Your task to perform on an android device: refresh tabs in the chrome app Image 0: 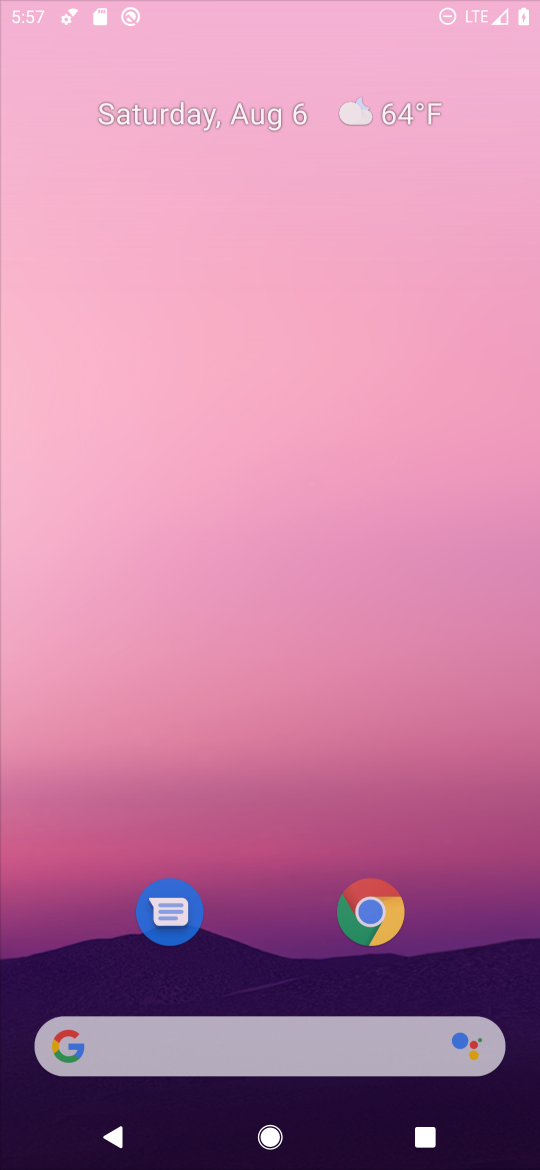
Step 0: press home button
Your task to perform on an android device: refresh tabs in the chrome app Image 1: 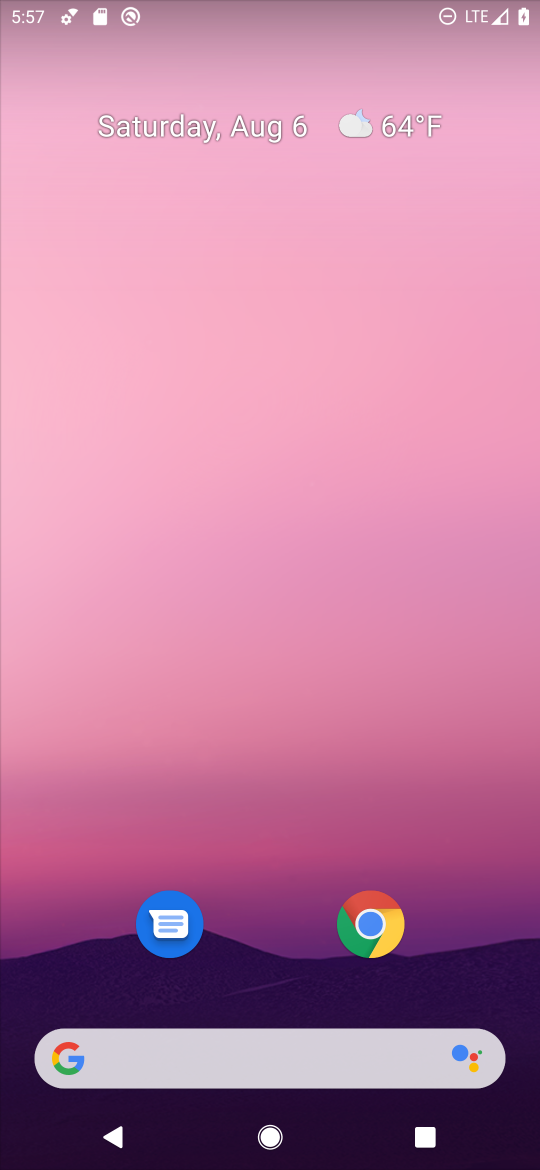
Step 1: drag from (250, 930) to (258, 28)
Your task to perform on an android device: refresh tabs in the chrome app Image 2: 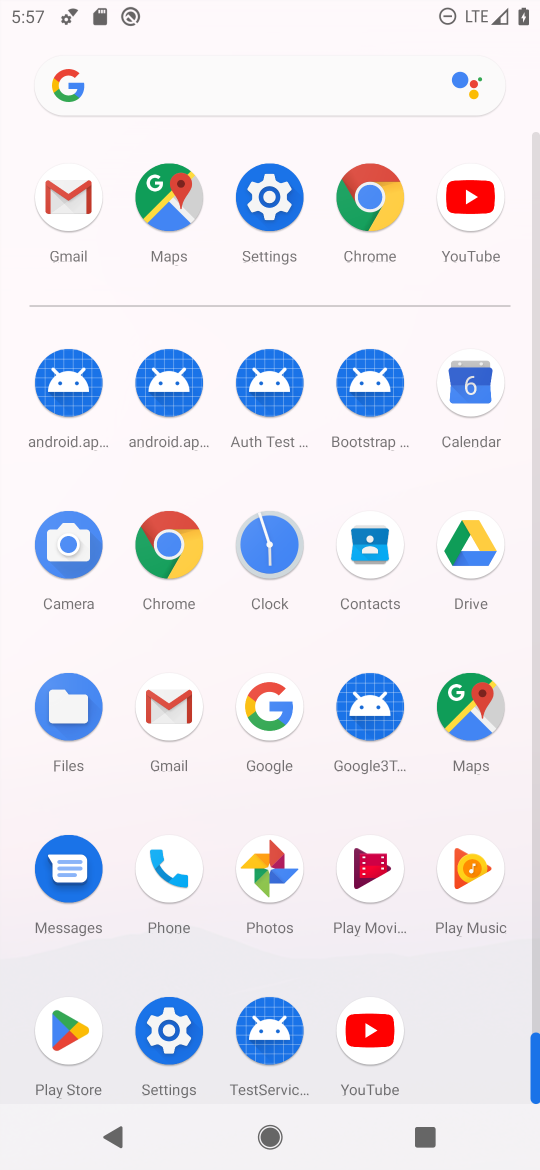
Step 2: click (373, 192)
Your task to perform on an android device: refresh tabs in the chrome app Image 3: 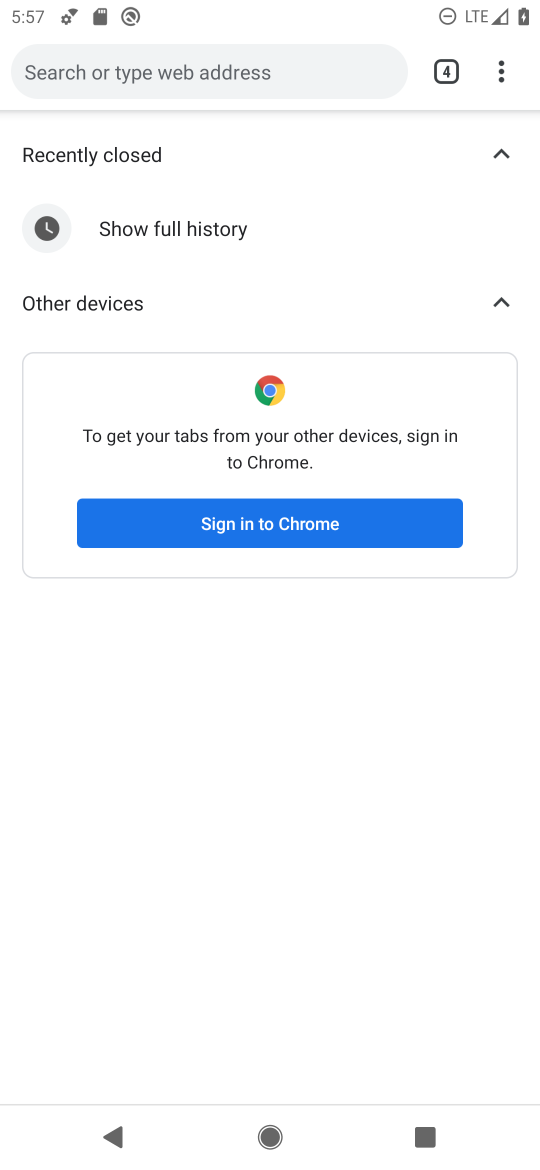
Step 3: click (506, 68)
Your task to perform on an android device: refresh tabs in the chrome app Image 4: 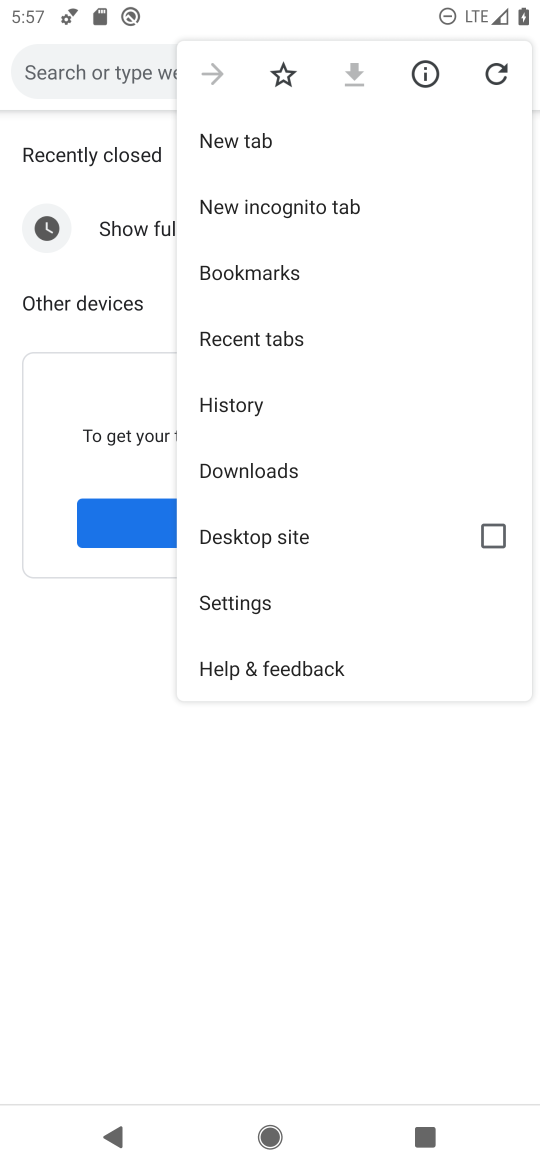
Step 4: click (492, 70)
Your task to perform on an android device: refresh tabs in the chrome app Image 5: 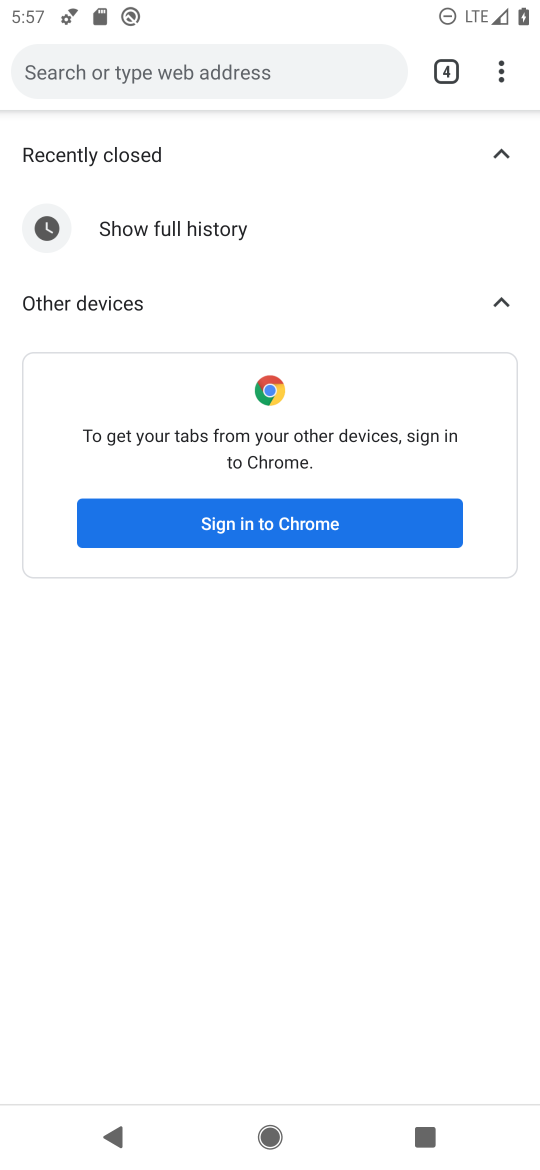
Step 5: task complete